Your task to perform on an android device: allow notifications from all sites in the chrome app Image 0: 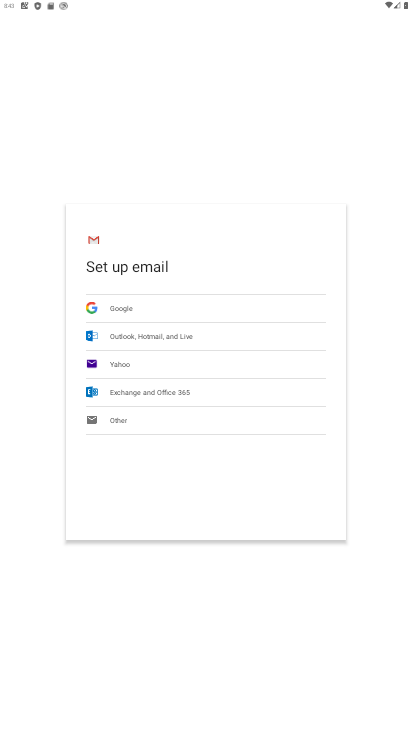
Step 0: press home button
Your task to perform on an android device: allow notifications from all sites in the chrome app Image 1: 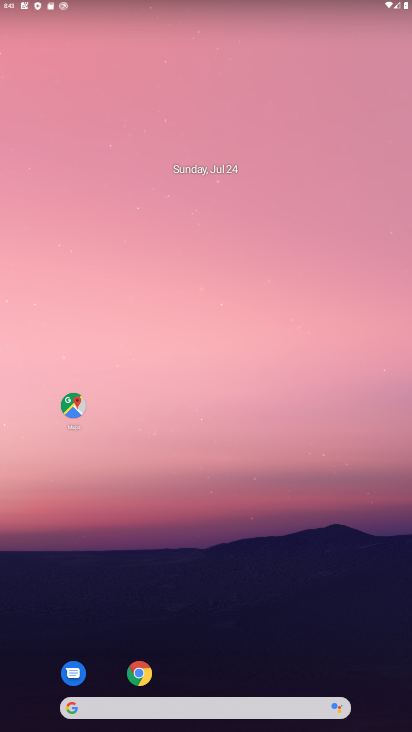
Step 1: click (133, 678)
Your task to perform on an android device: allow notifications from all sites in the chrome app Image 2: 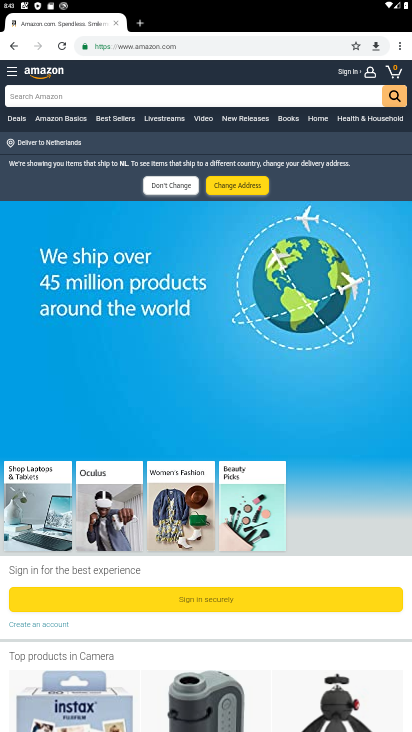
Step 2: click (401, 45)
Your task to perform on an android device: allow notifications from all sites in the chrome app Image 3: 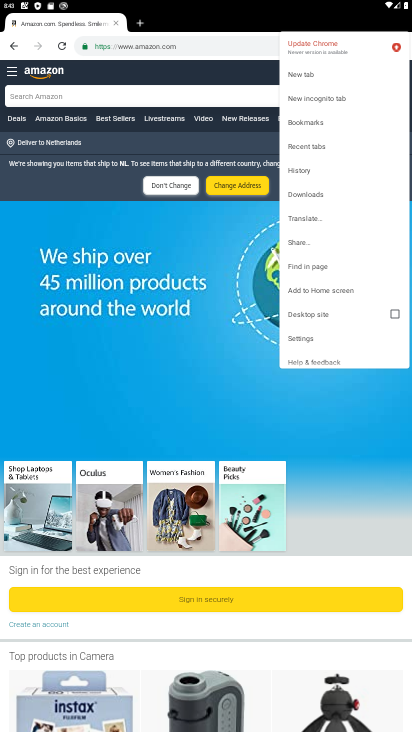
Step 3: click (297, 337)
Your task to perform on an android device: allow notifications from all sites in the chrome app Image 4: 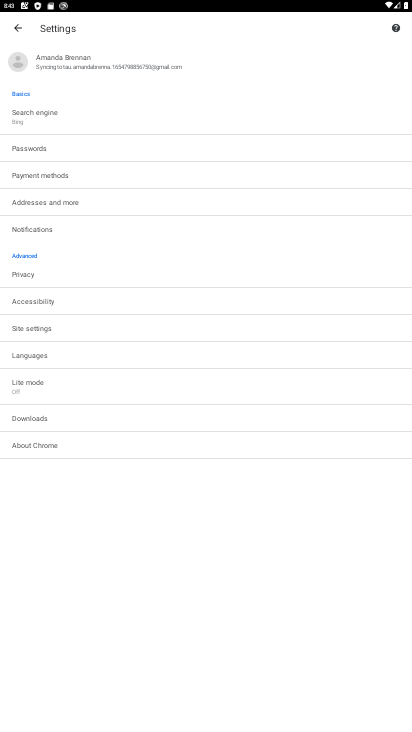
Step 4: click (28, 331)
Your task to perform on an android device: allow notifications from all sites in the chrome app Image 5: 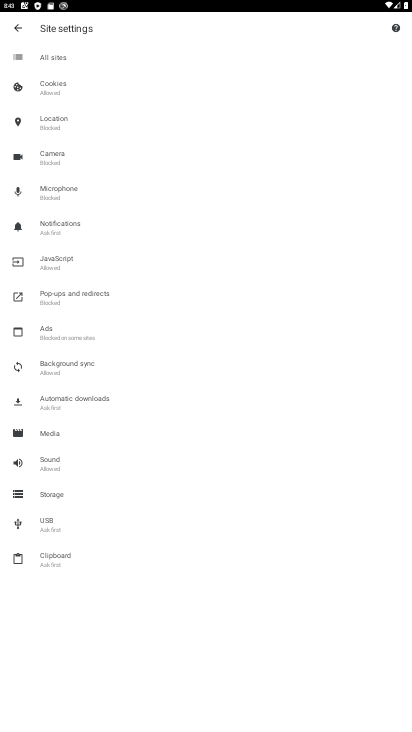
Step 5: click (57, 240)
Your task to perform on an android device: allow notifications from all sites in the chrome app Image 6: 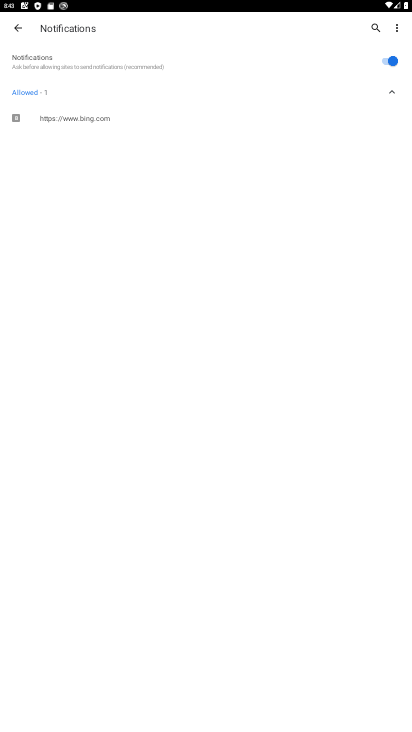
Step 6: task complete